Your task to perform on an android device: allow notifications from all sites in the chrome app Image 0: 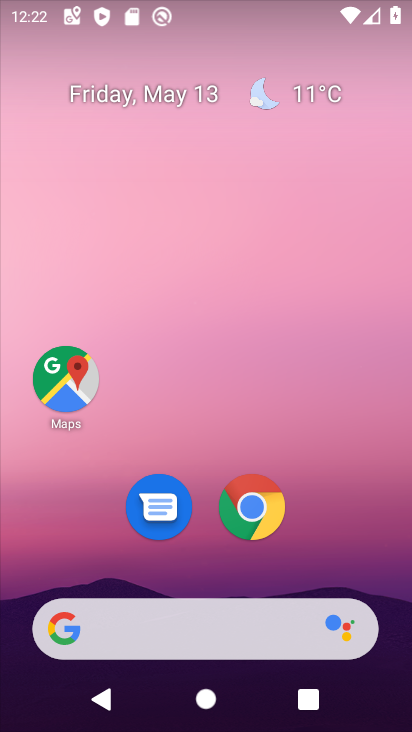
Step 0: click (256, 532)
Your task to perform on an android device: allow notifications from all sites in the chrome app Image 1: 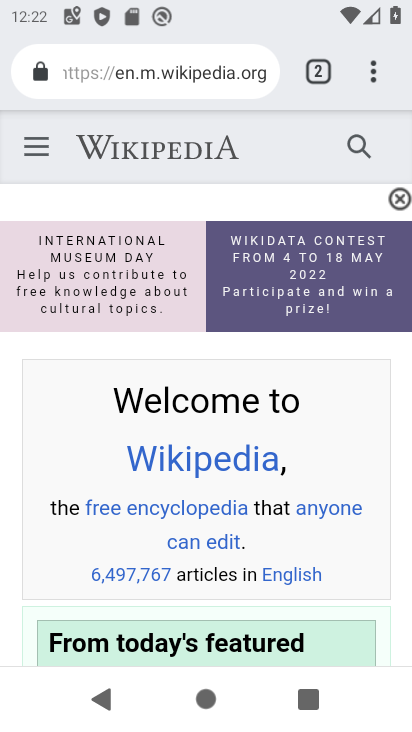
Step 1: drag from (365, 63) to (108, 515)
Your task to perform on an android device: allow notifications from all sites in the chrome app Image 2: 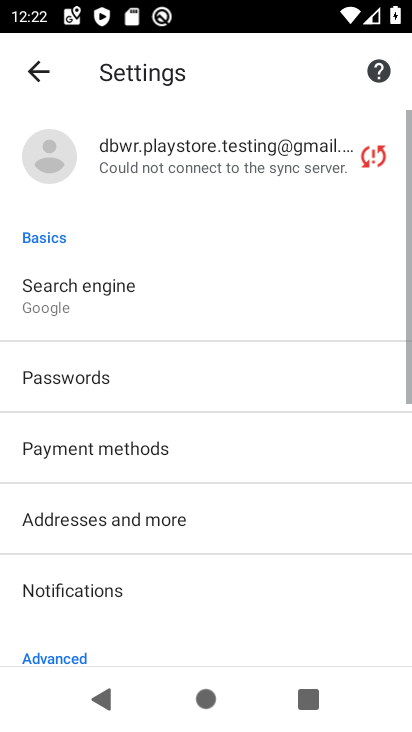
Step 2: drag from (119, 527) to (101, 69)
Your task to perform on an android device: allow notifications from all sites in the chrome app Image 3: 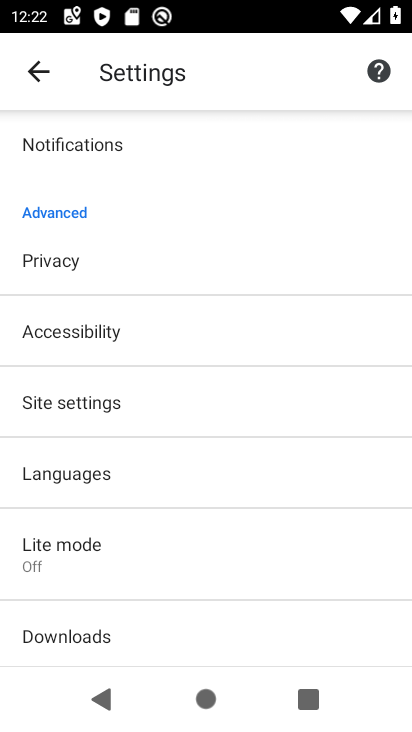
Step 3: click (96, 417)
Your task to perform on an android device: allow notifications from all sites in the chrome app Image 4: 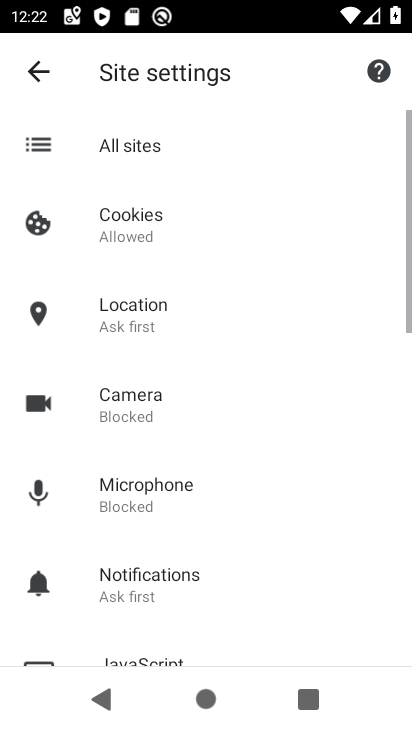
Step 4: drag from (207, 547) to (198, 460)
Your task to perform on an android device: allow notifications from all sites in the chrome app Image 5: 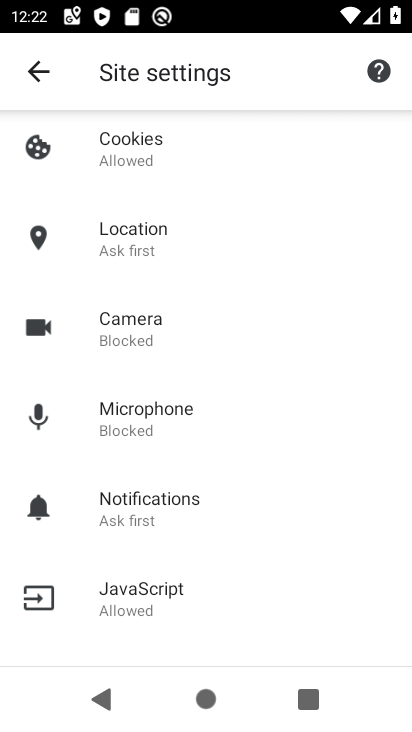
Step 5: click (177, 495)
Your task to perform on an android device: allow notifications from all sites in the chrome app Image 6: 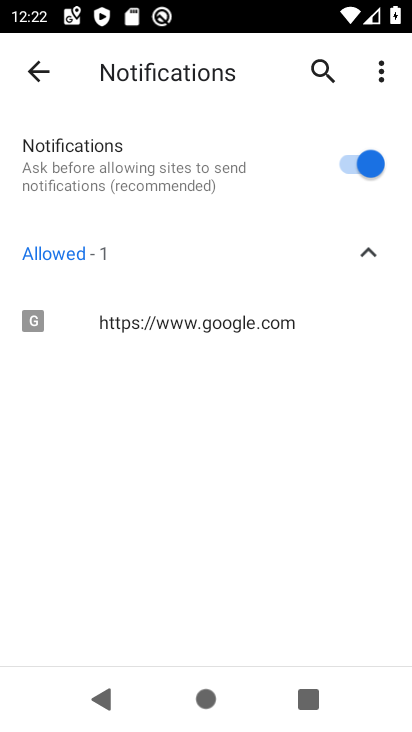
Step 6: task complete